Your task to perform on an android device: stop showing notifications on the lock screen Image 0: 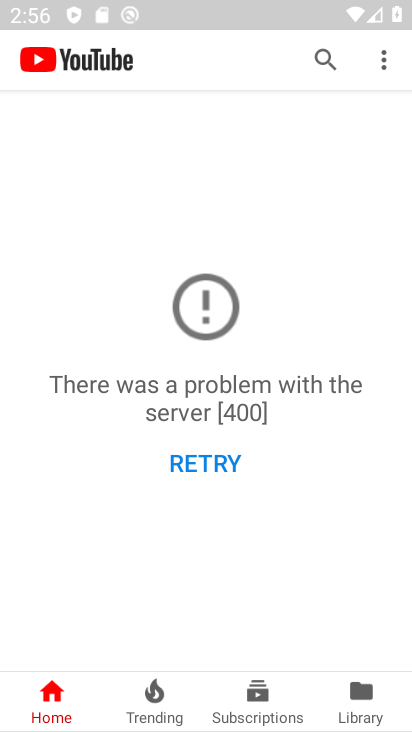
Step 0: press back button
Your task to perform on an android device: stop showing notifications on the lock screen Image 1: 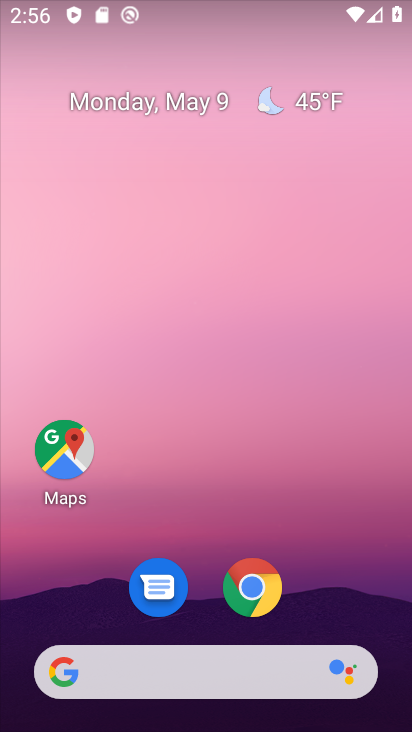
Step 1: drag from (183, 631) to (220, 151)
Your task to perform on an android device: stop showing notifications on the lock screen Image 2: 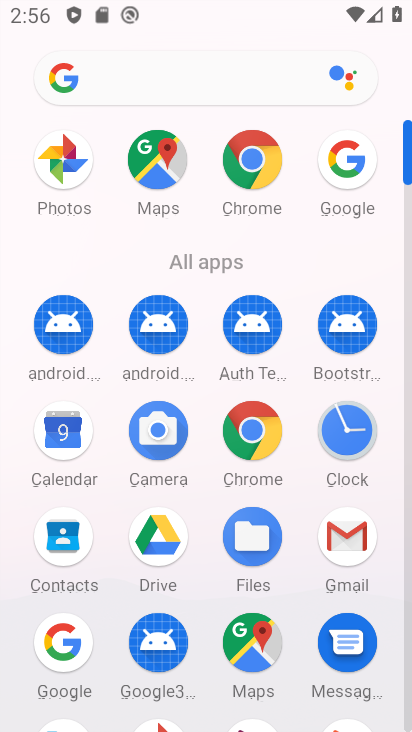
Step 2: drag from (174, 655) to (263, 350)
Your task to perform on an android device: stop showing notifications on the lock screen Image 3: 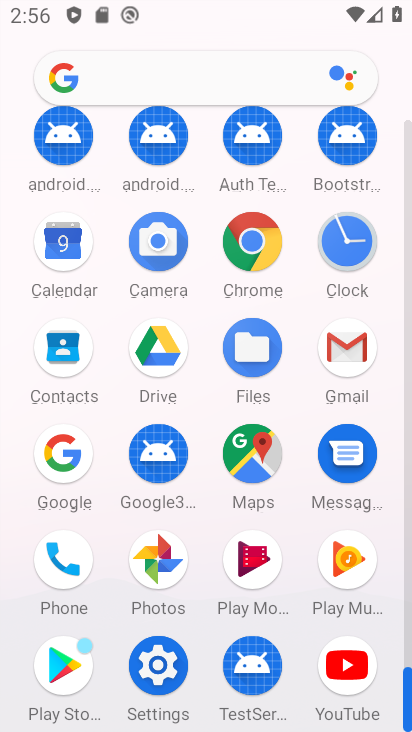
Step 3: click (161, 671)
Your task to perform on an android device: stop showing notifications on the lock screen Image 4: 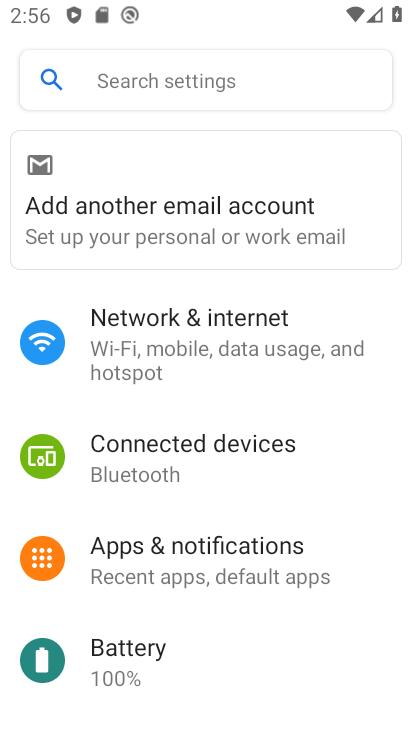
Step 4: click (181, 585)
Your task to perform on an android device: stop showing notifications on the lock screen Image 5: 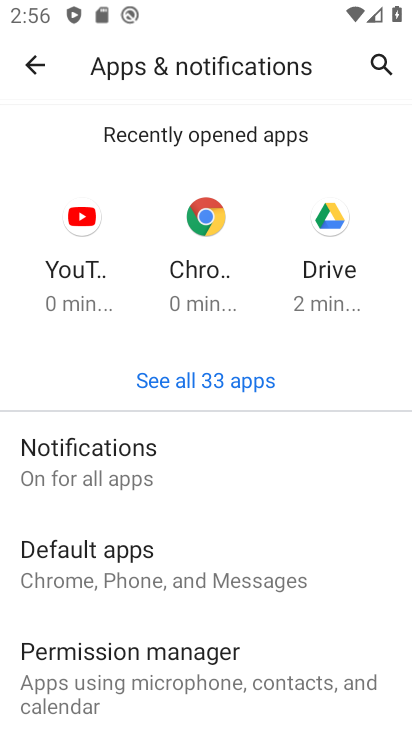
Step 5: click (176, 498)
Your task to perform on an android device: stop showing notifications on the lock screen Image 6: 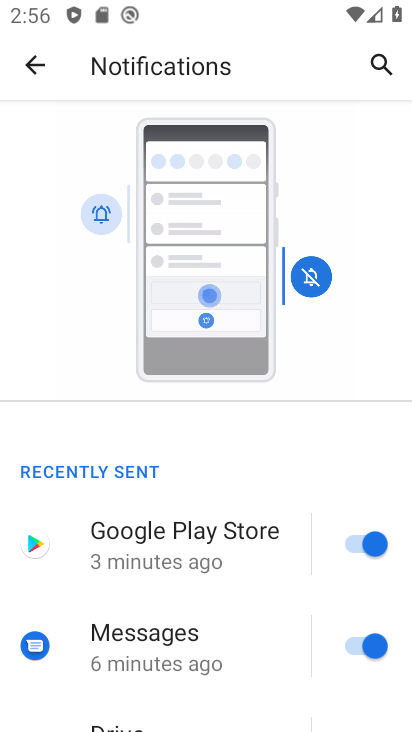
Step 6: drag from (261, 716) to (306, 497)
Your task to perform on an android device: stop showing notifications on the lock screen Image 7: 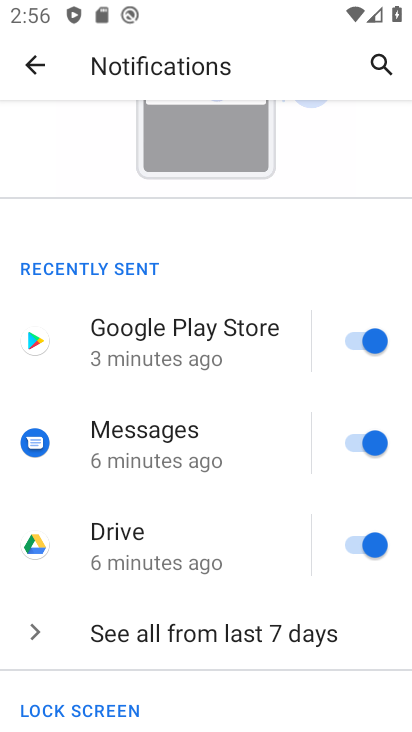
Step 7: drag from (245, 644) to (259, 463)
Your task to perform on an android device: stop showing notifications on the lock screen Image 8: 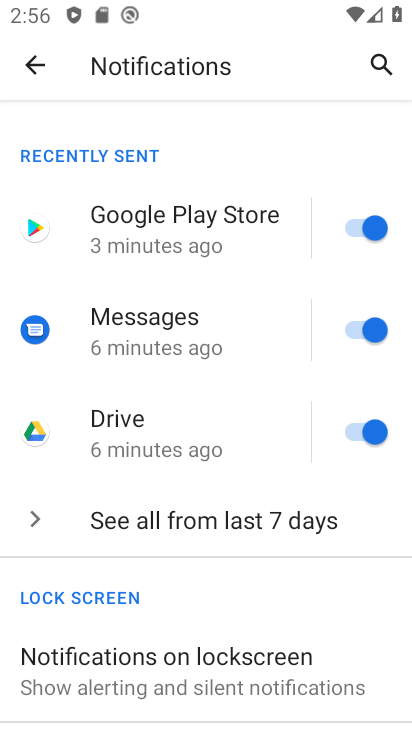
Step 8: click (224, 692)
Your task to perform on an android device: stop showing notifications on the lock screen Image 9: 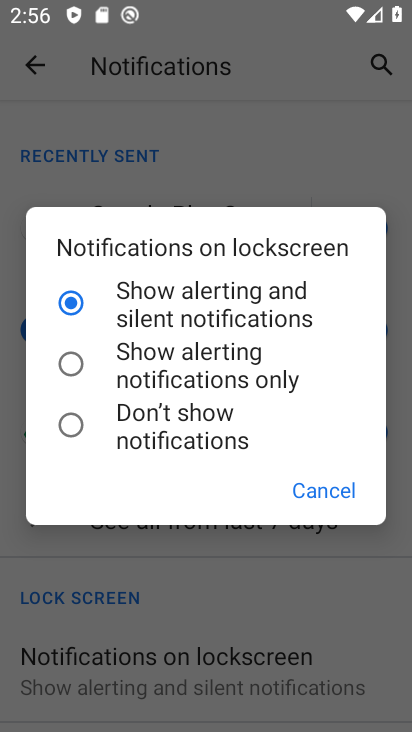
Step 9: click (203, 426)
Your task to perform on an android device: stop showing notifications on the lock screen Image 10: 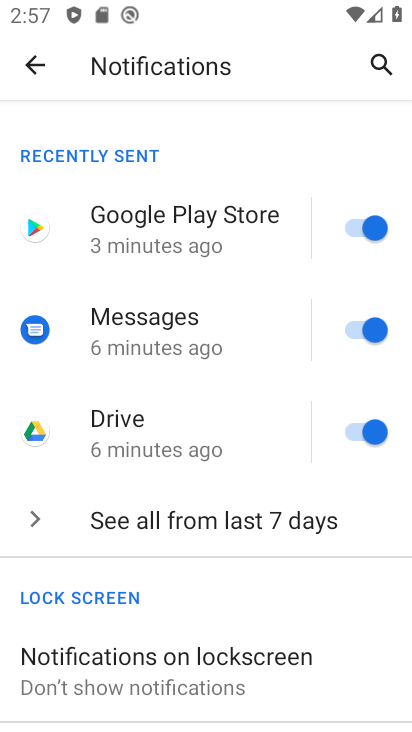
Step 10: task complete